Your task to perform on an android device: What's the weather? Image 0: 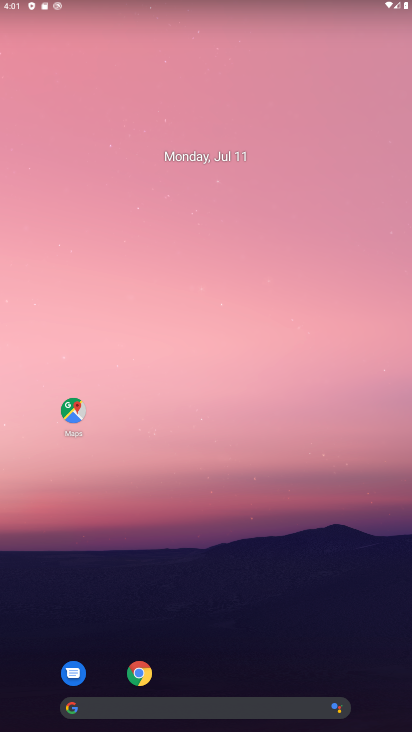
Step 0: drag from (185, 664) to (197, 129)
Your task to perform on an android device: What's the weather? Image 1: 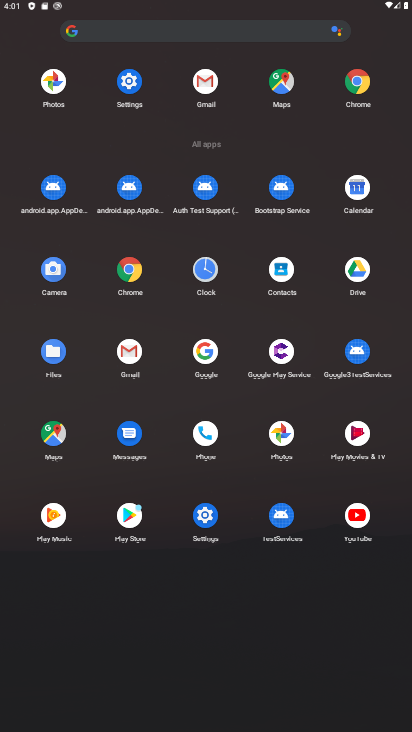
Step 1: click (204, 352)
Your task to perform on an android device: What's the weather? Image 2: 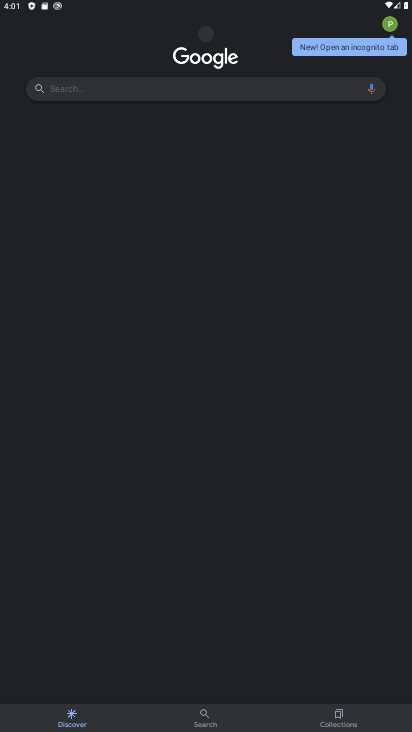
Step 2: click (238, 93)
Your task to perform on an android device: What's the weather? Image 3: 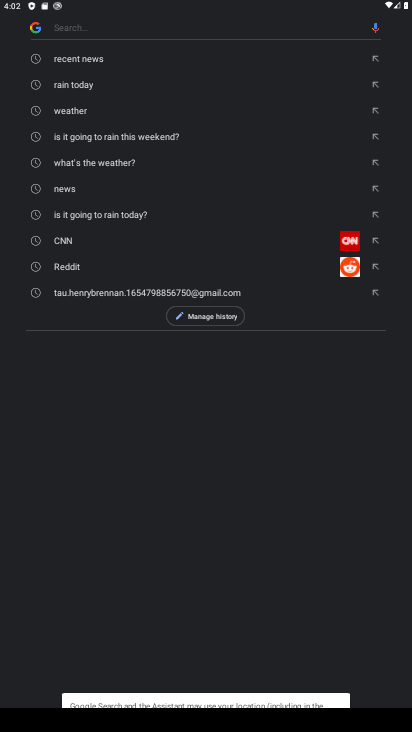
Step 3: click (90, 114)
Your task to perform on an android device: What's the weather? Image 4: 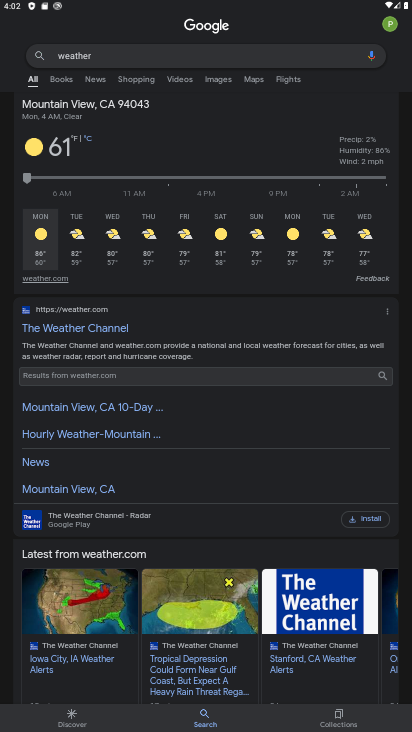
Step 4: task complete